Your task to perform on an android device: Go to Yahoo.com Image 0: 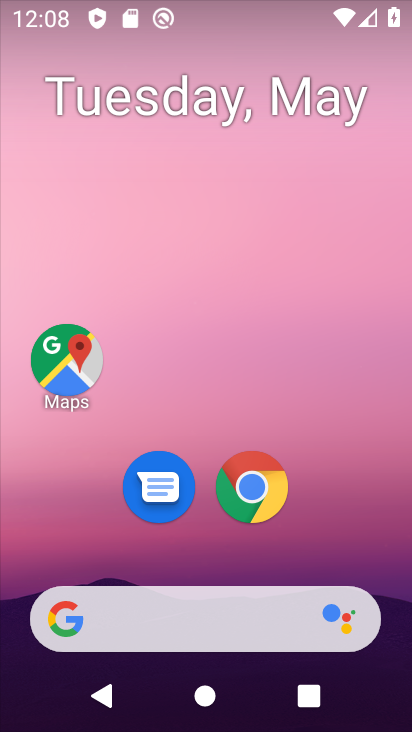
Step 0: click (253, 461)
Your task to perform on an android device: Go to Yahoo.com Image 1: 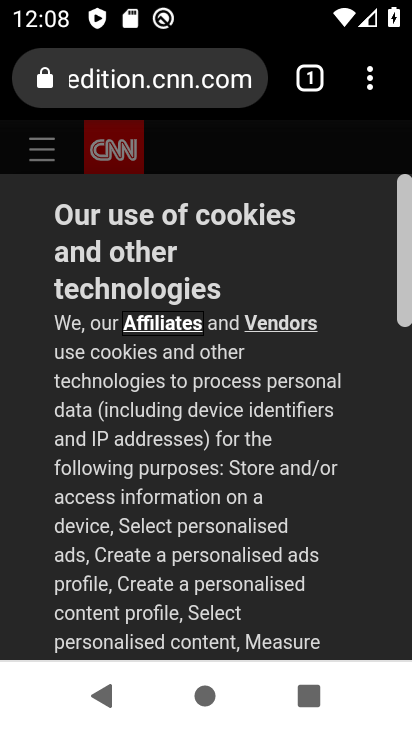
Step 1: click (304, 72)
Your task to perform on an android device: Go to Yahoo.com Image 2: 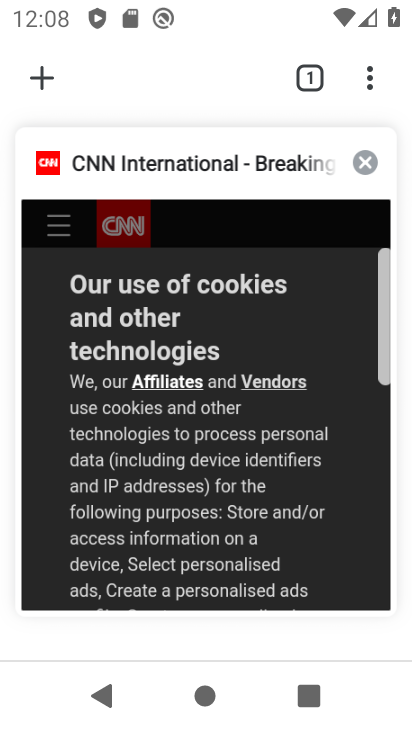
Step 2: click (40, 83)
Your task to perform on an android device: Go to Yahoo.com Image 3: 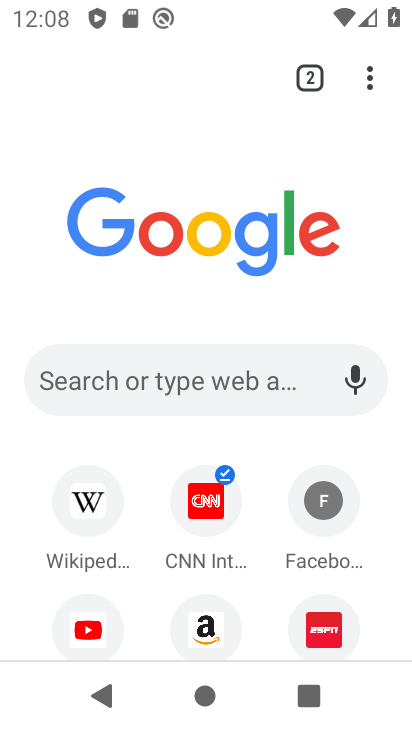
Step 3: drag from (264, 595) to (256, 379)
Your task to perform on an android device: Go to Yahoo.com Image 4: 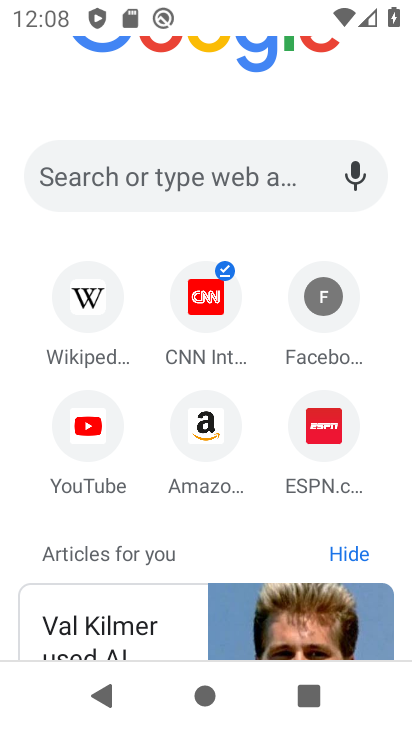
Step 4: click (211, 179)
Your task to perform on an android device: Go to Yahoo.com Image 5: 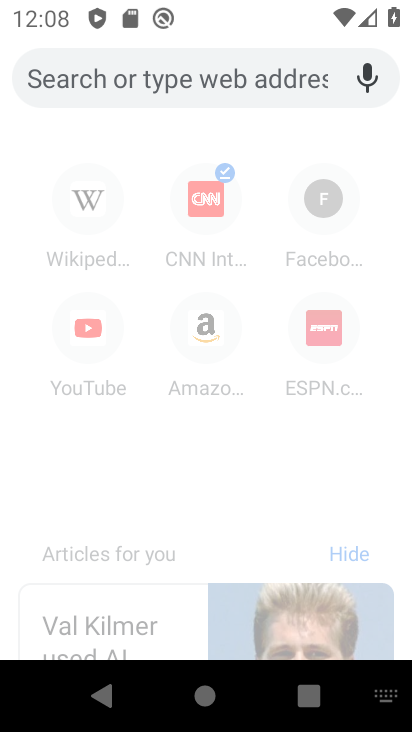
Step 5: type "yahoo.com"
Your task to perform on an android device: Go to Yahoo.com Image 6: 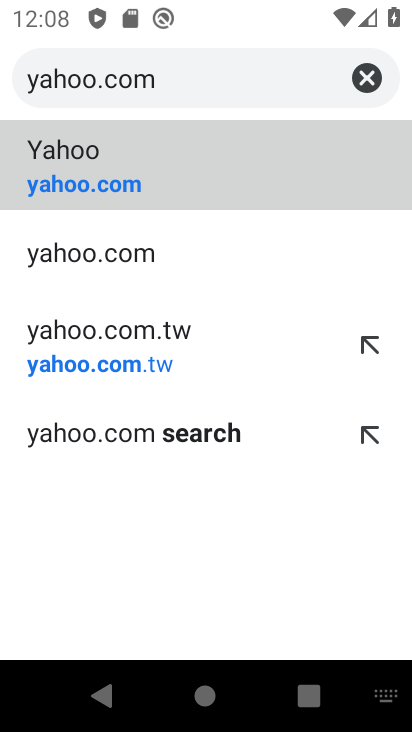
Step 6: click (184, 161)
Your task to perform on an android device: Go to Yahoo.com Image 7: 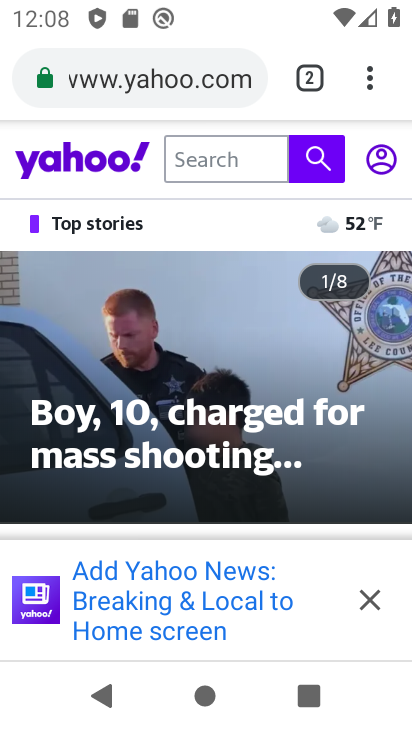
Step 7: task complete